Your task to perform on an android device: open a bookmark in the chrome app Image 0: 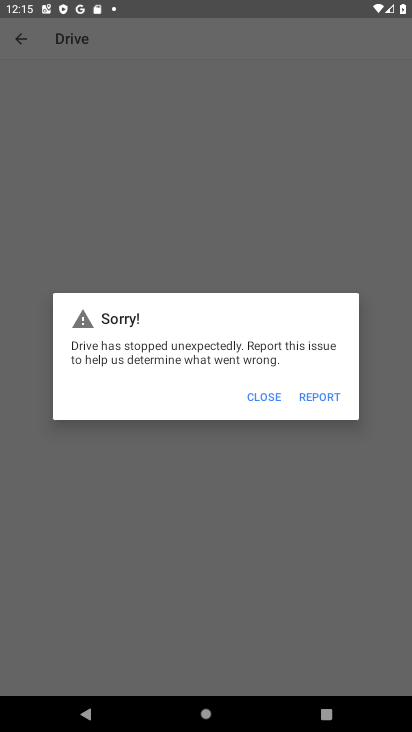
Step 0: press home button
Your task to perform on an android device: open a bookmark in the chrome app Image 1: 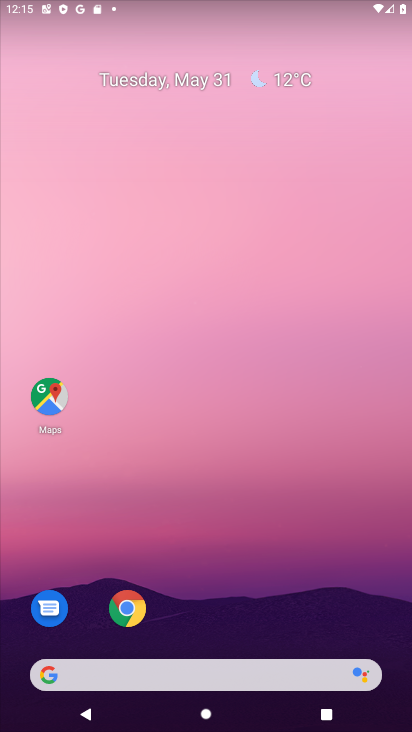
Step 1: click (126, 613)
Your task to perform on an android device: open a bookmark in the chrome app Image 2: 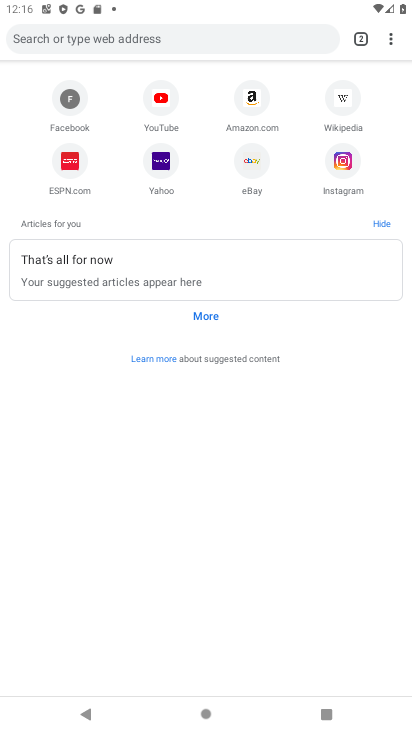
Step 2: click (388, 41)
Your task to perform on an android device: open a bookmark in the chrome app Image 3: 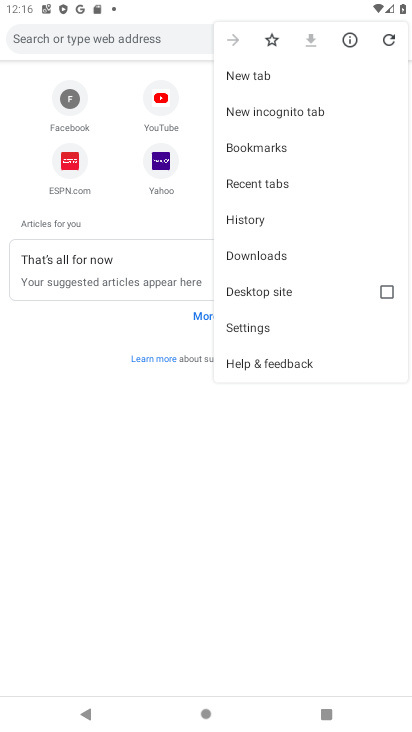
Step 3: click (277, 154)
Your task to perform on an android device: open a bookmark in the chrome app Image 4: 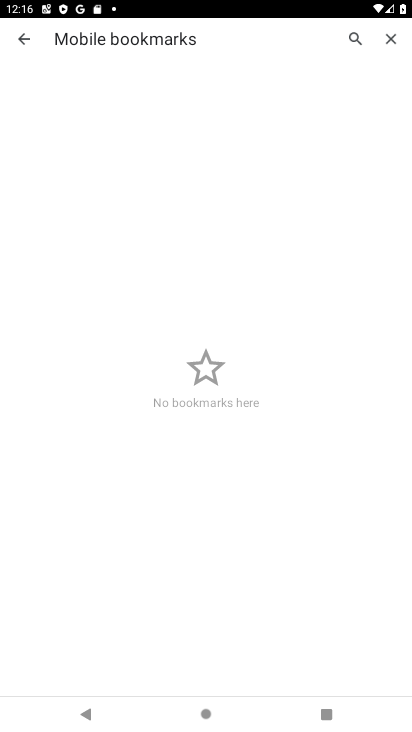
Step 4: task complete